Your task to perform on an android device: open chrome privacy settings Image 0: 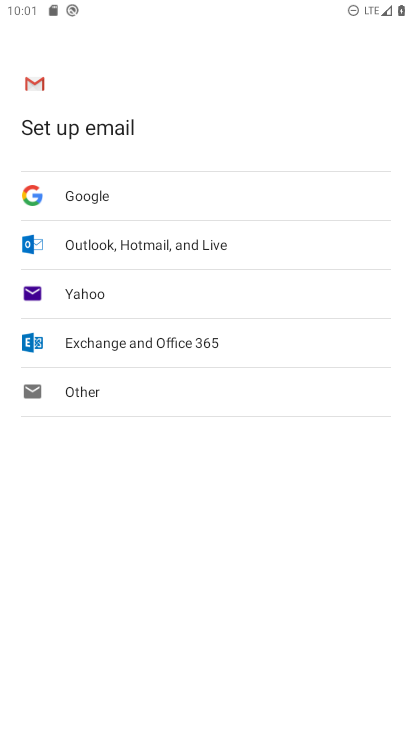
Step 0: press home button
Your task to perform on an android device: open chrome privacy settings Image 1: 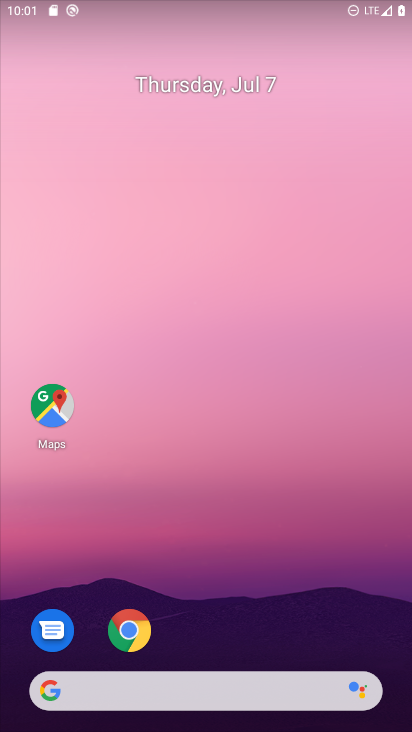
Step 1: click (140, 617)
Your task to perform on an android device: open chrome privacy settings Image 2: 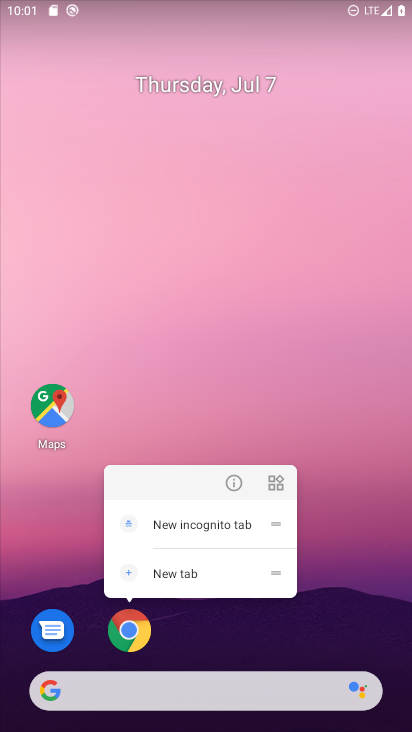
Step 2: click (129, 625)
Your task to perform on an android device: open chrome privacy settings Image 3: 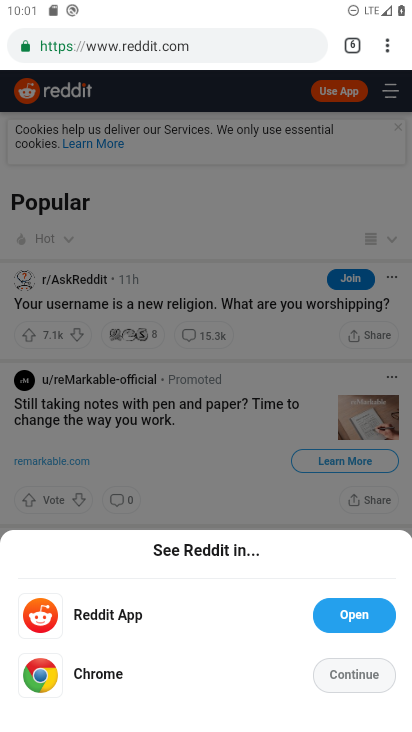
Step 3: click (382, 42)
Your task to perform on an android device: open chrome privacy settings Image 4: 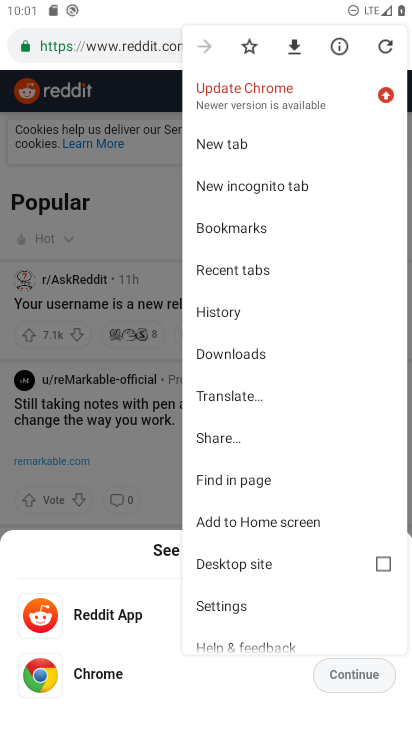
Step 4: click (222, 608)
Your task to perform on an android device: open chrome privacy settings Image 5: 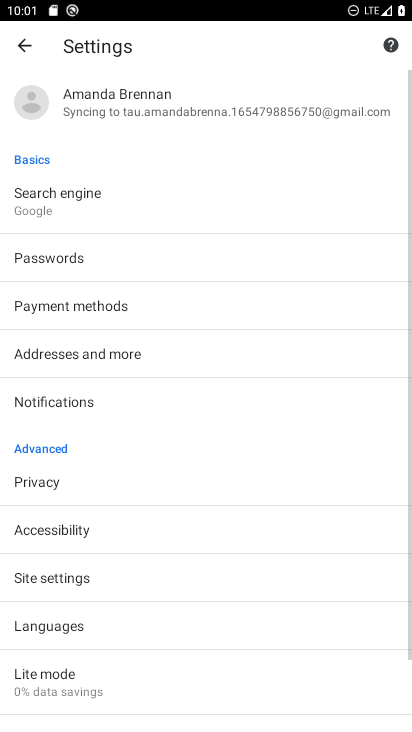
Step 5: click (106, 491)
Your task to perform on an android device: open chrome privacy settings Image 6: 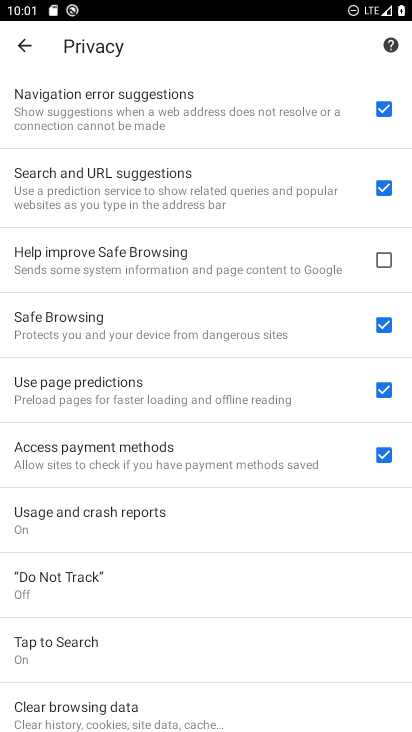
Step 6: task complete